Your task to perform on an android device: When is my next meeting? Image 0: 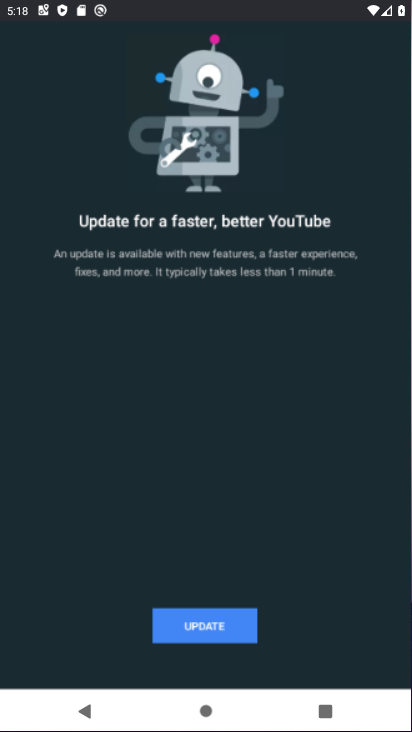
Step 0: drag from (206, 447) to (203, 278)
Your task to perform on an android device: When is my next meeting? Image 1: 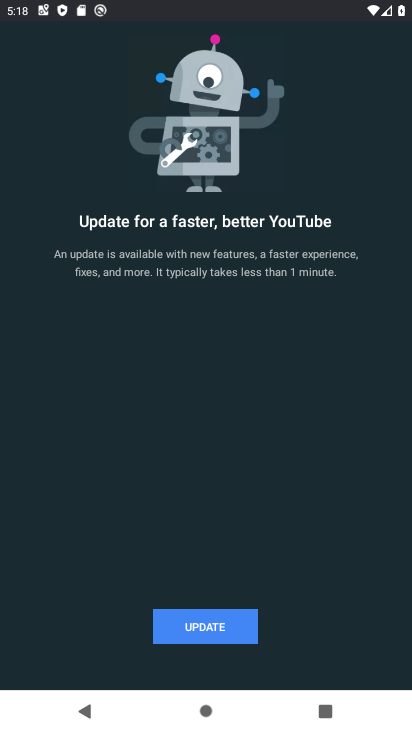
Step 1: press home button
Your task to perform on an android device: When is my next meeting? Image 2: 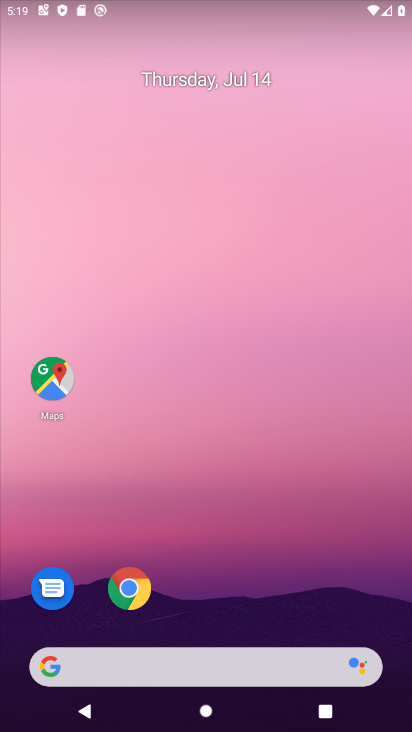
Step 2: drag from (234, 658) to (193, 222)
Your task to perform on an android device: When is my next meeting? Image 3: 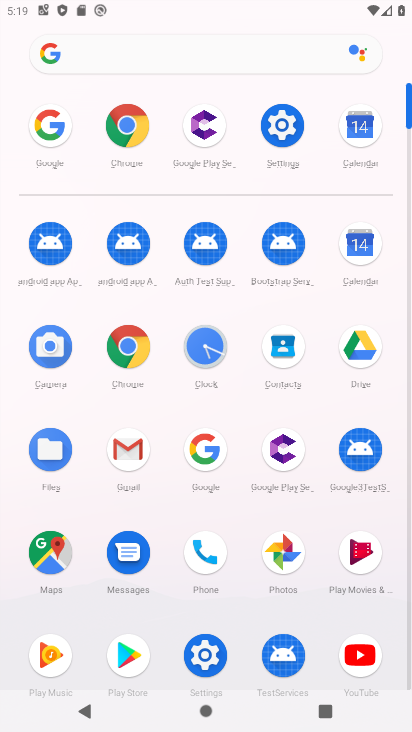
Step 3: click (354, 244)
Your task to perform on an android device: When is my next meeting? Image 4: 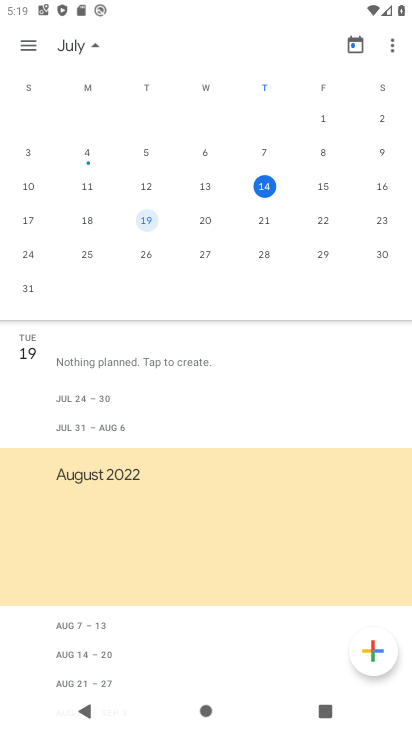
Step 4: click (27, 216)
Your task to perform on an android device: When is my next meeting? Image 5: 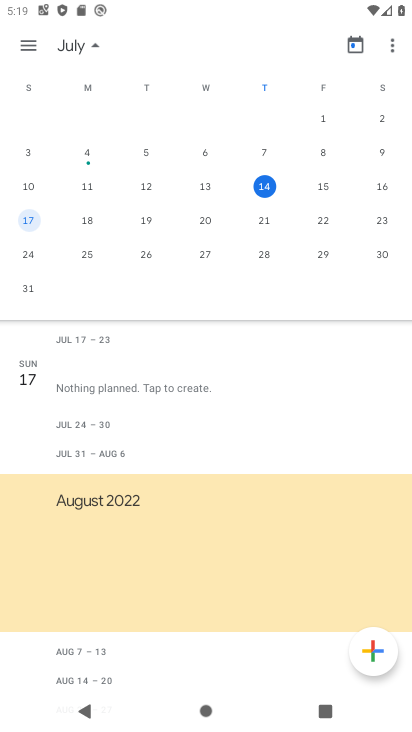
Step 5: task complete